Your task to perform on an android device: toggle priority inbox in the gmail app Image 0: 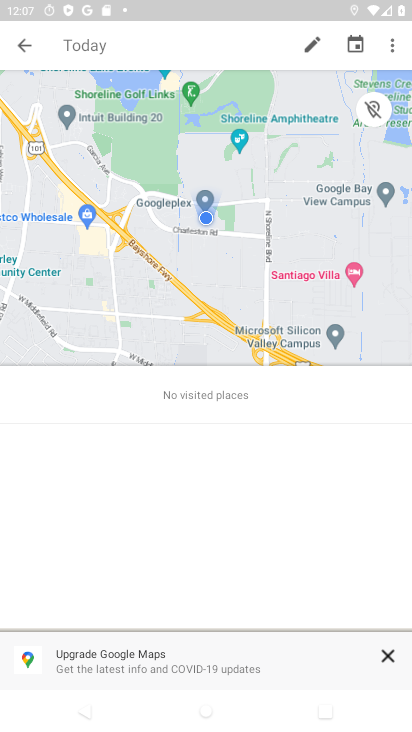
Step 0: press home button
Your task to perform on an android device: toggle priority inbox in the gmail app Image 1: 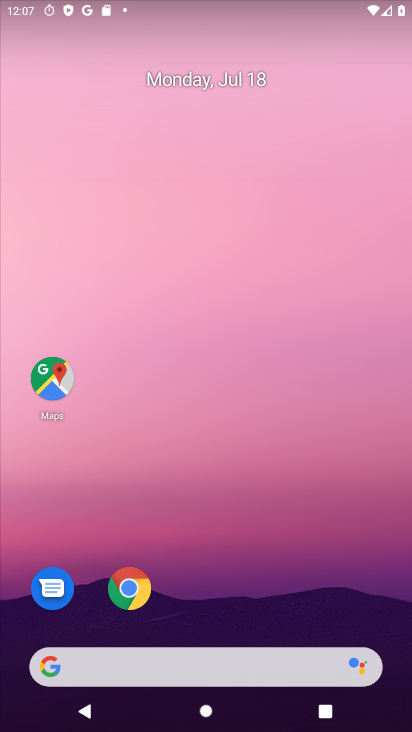
Step 1: drag from (301, 612) to (218, 91)
Your task to perform on an android device: toggle priority inbox in the gmail app Image 2: 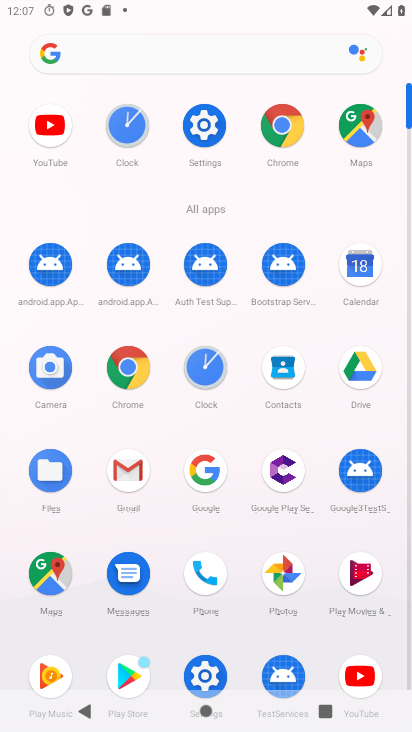
Step 2: click (129, 472)
Your task to perform on an android device: toggle priority inbox in the gmail app Image 3: 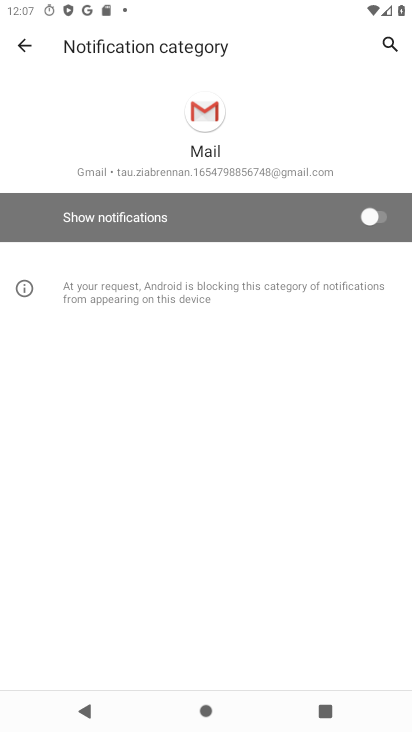
Step 3: click (38, 49)
Your task to perform on an android device: toggle priority inbox in the gmail app Image 4: 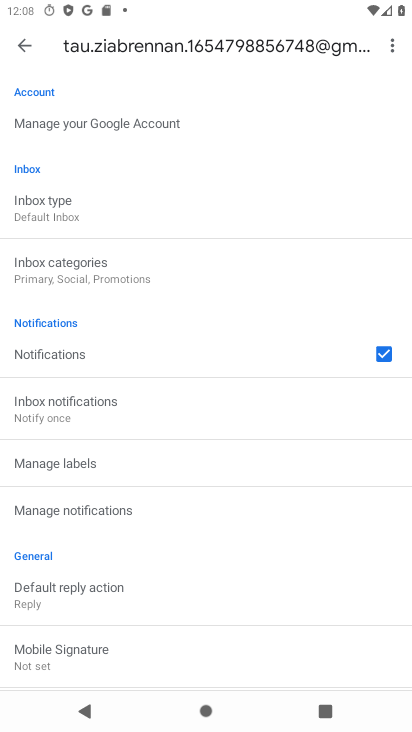
Step 4: click (30, 197)
Your task to perform on an android device: toggle priority inbox in the gmail app Image 5: 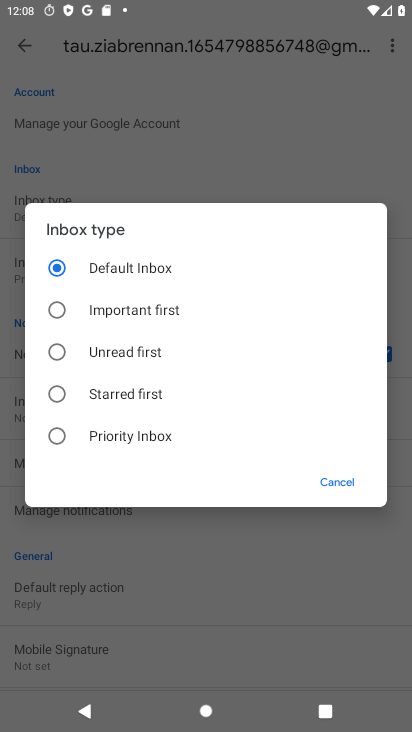
Step 5: click (74, 430)
Your task to perform on an android device: toggle priority inbox in the gmail app Image 6: 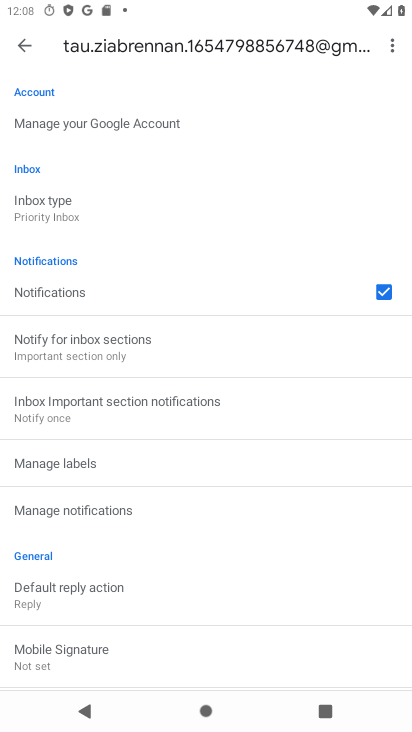
Step 6: task complete